Your task to perform on an android device: Show me popular games on the Play Store Image 0: 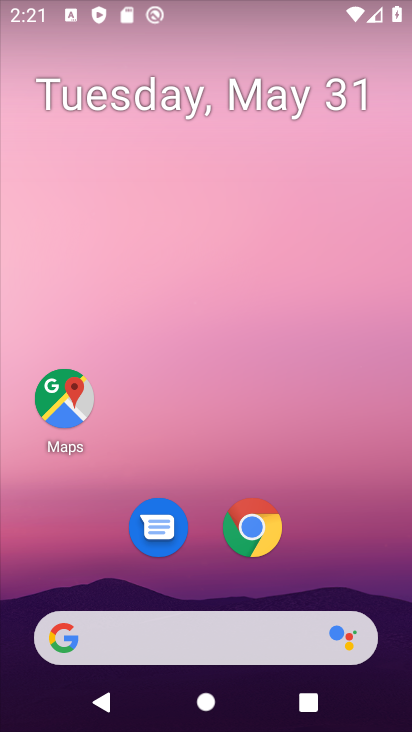
Step 0: drag from (388, 630) to (358, 190)
Your task to perform on an android device: Show me popular games on the Play Store Image 1: 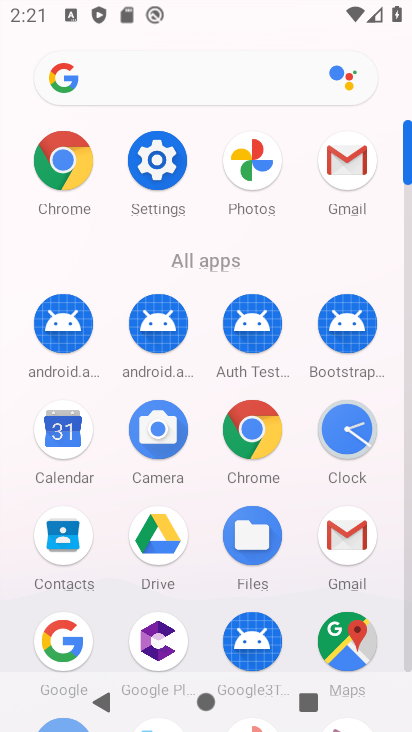
Step 1: click (405, 519)
Your task to perform on an android device: Show me popular games on the Play Store Image 2: 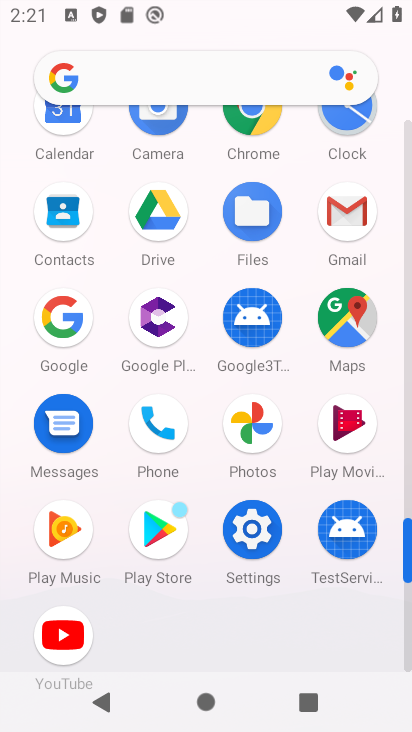
Step 2: click (167, 524)
Your task to perform on an android device: Show me popular games on the Play Store Image 3: 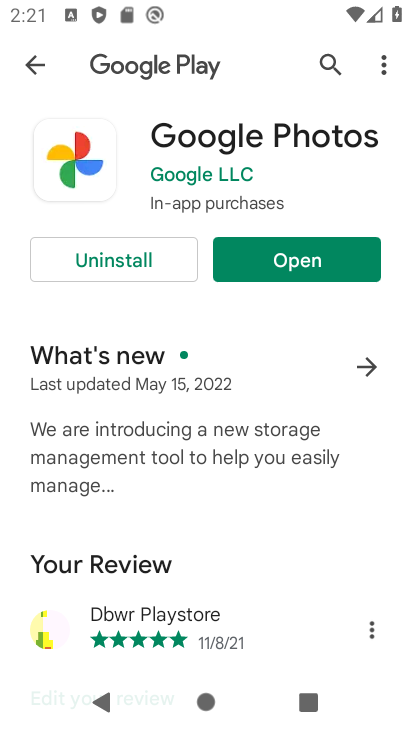
Step 3: press back button
Your task to perform on an android device: Show me popular games on the Play Store Image 4: 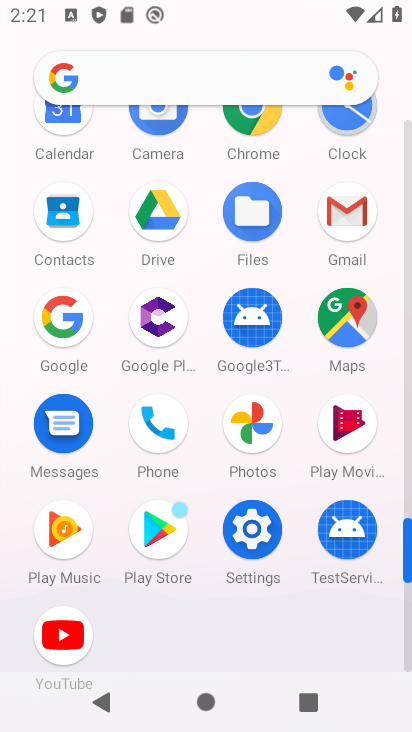
Step 4: click (166, 527)
Your task to perform on an android device: Show me popular games on the Play Store Image 5: 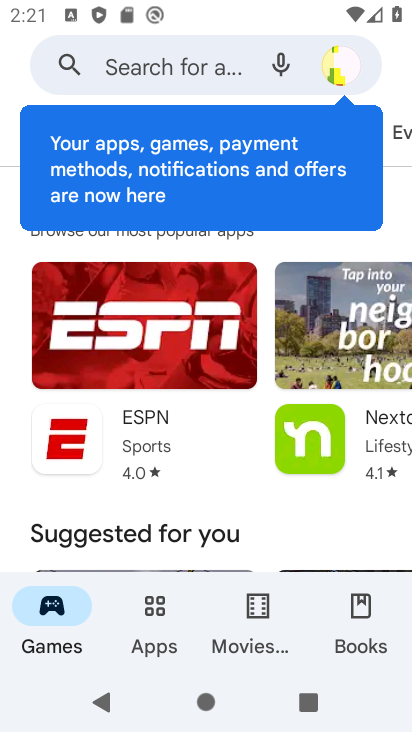
Step 5: drag from (280, 549) to (249, 153)
Your task to perform on an android device: Show me popular games on the Play Store Image 6: 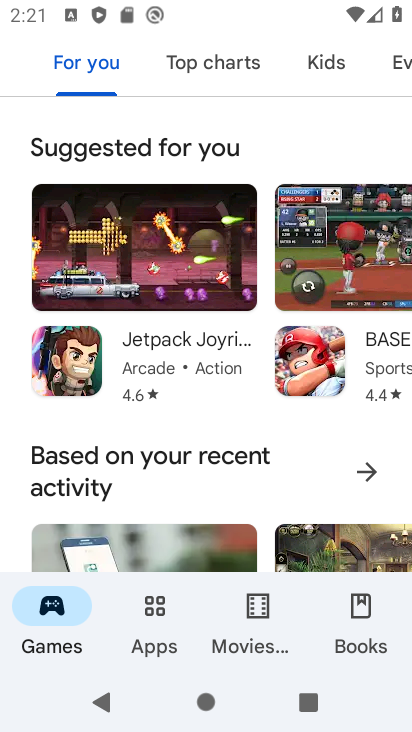
Step 6: drag from (274, 465) to (255, 186)
Your task to perform on an android device: Show me popular games on the Play Store Image 7: 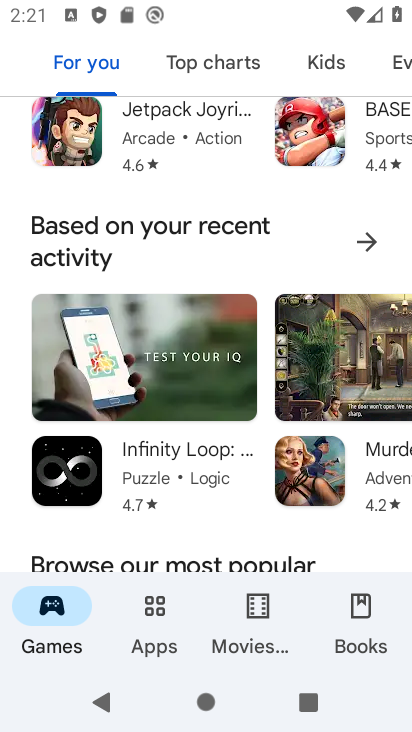
Step 7: drag from (269, 534) to (235, 175)
Your task to perform on an android device: Show me popular games on the Play Store Image 8: 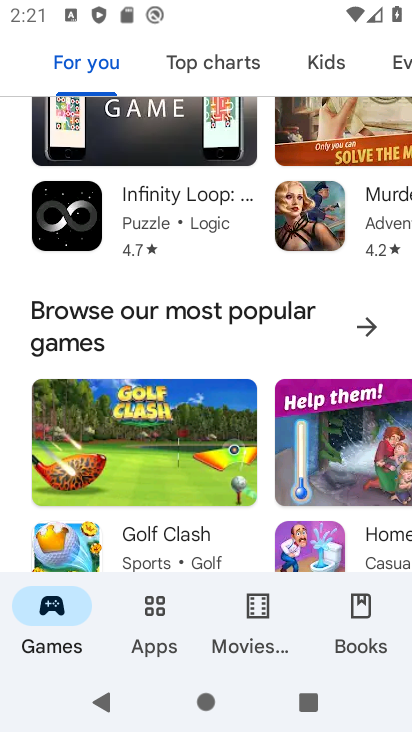
Step 8: click (368, 327)
Your task to perform on an android device: Show me popular games on the Play Store Image 9: 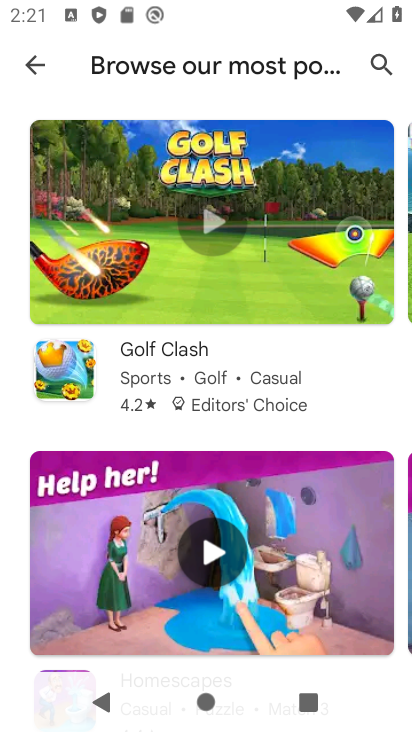
Step 9: task complete